Your task to perform on an android device: change notification settings in the gmail app Image 0: 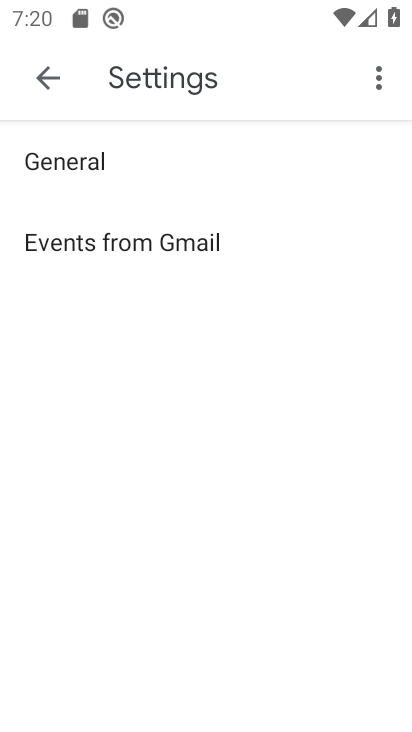
Step 0: press home button
Your task to perform on an android device: change notification settings in the gmail app Image 1: 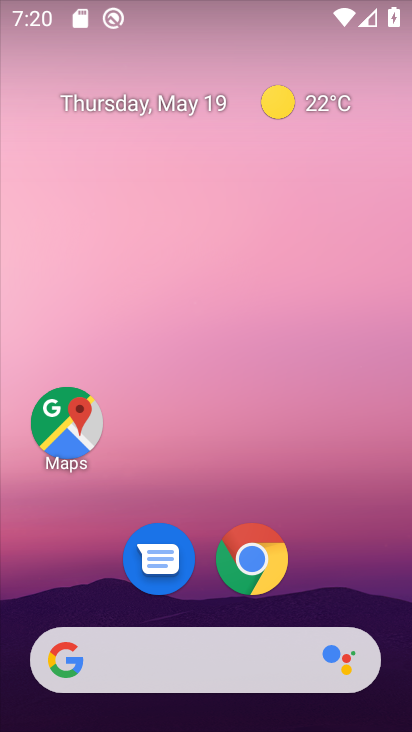
Step 1: drag from (328, 597) to (330, 5)
Your task to perform on an android device: change notification settings in the gmail app Image 2: 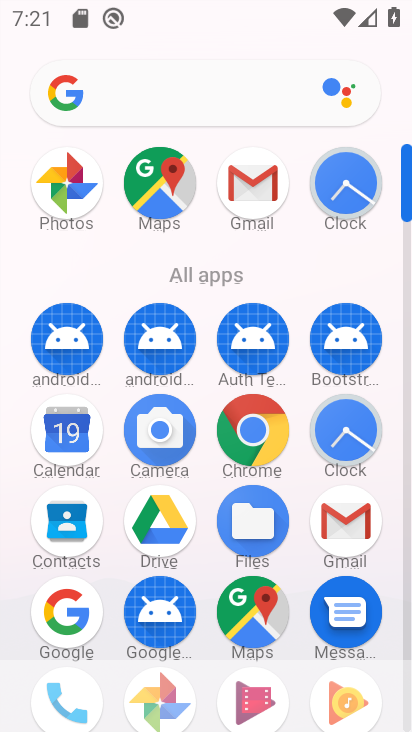
Step 2: click (241, 198)
Your task to perform on an android device: change notification settings in the gmail app Image 3: 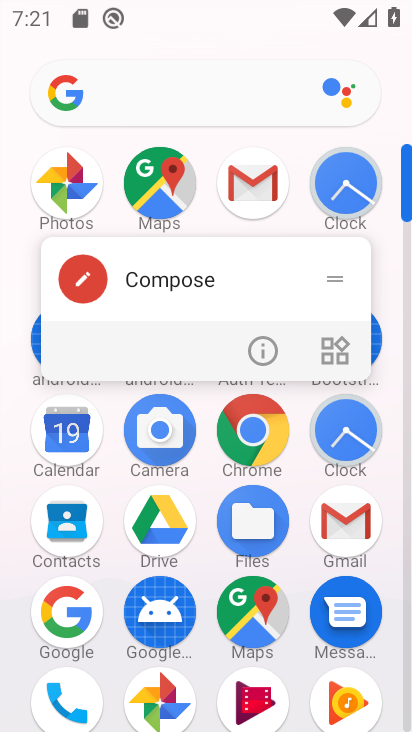
Step 3: click (260, 182)
Your task to perform on an android device: change notification settings in the gmail app Image 4: 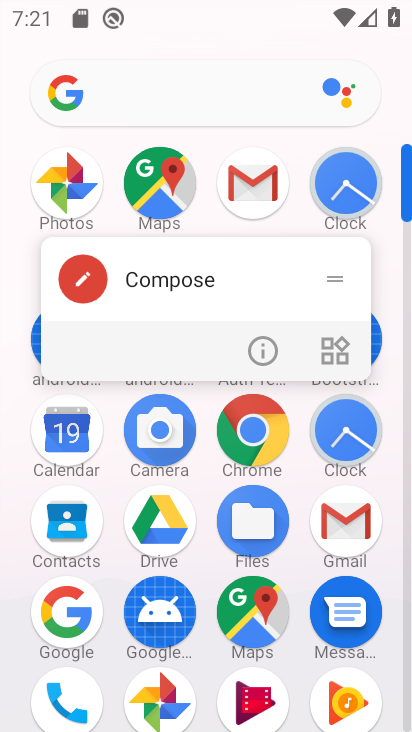
Step 4: click (260, 182)
Your task to perform on an android device: change notification settings in the gmail app Image 5: 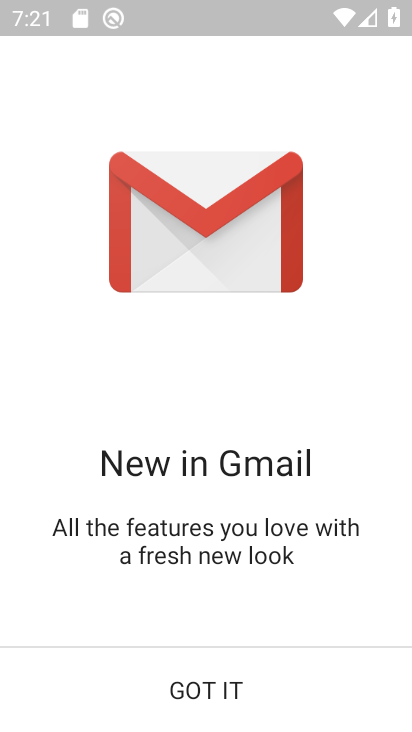
Step 5: click (65, 705)
Your task to perform on an android device: change notification settings in the gmail app Image 6: 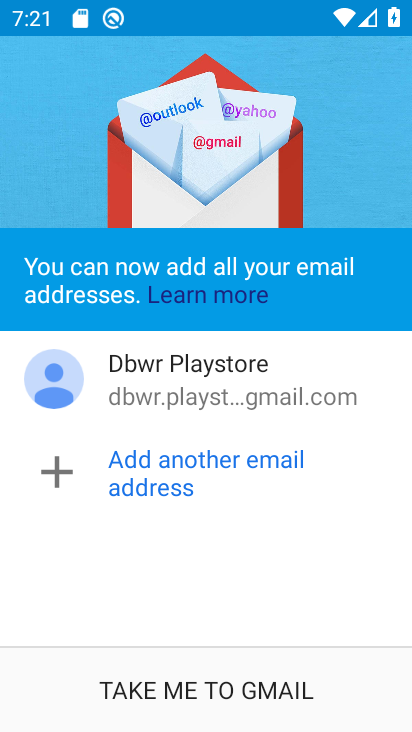
Step 6: click (55, 699)
Your task to perform on an android device: change notification settings in the gmail app Image 7: 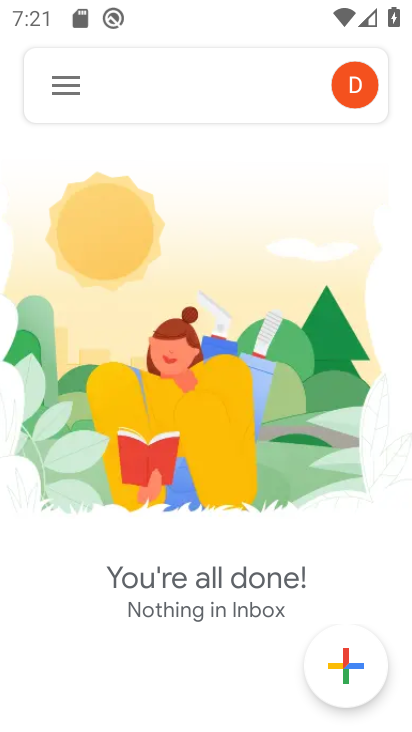
Step 7: click (71, 103)
Your task to perform on an android device: change notification settings in the gmail app Image 8: 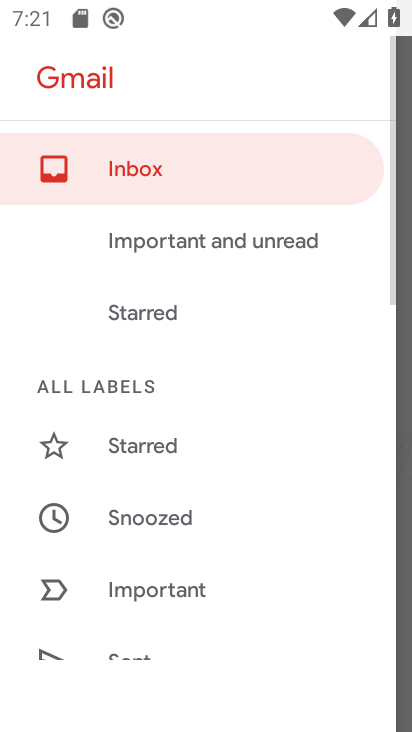
Step 8: drag from (204, 595) to (206, 185)
Your task to perform on an android device: change notification settings in the gmail app Image 9: 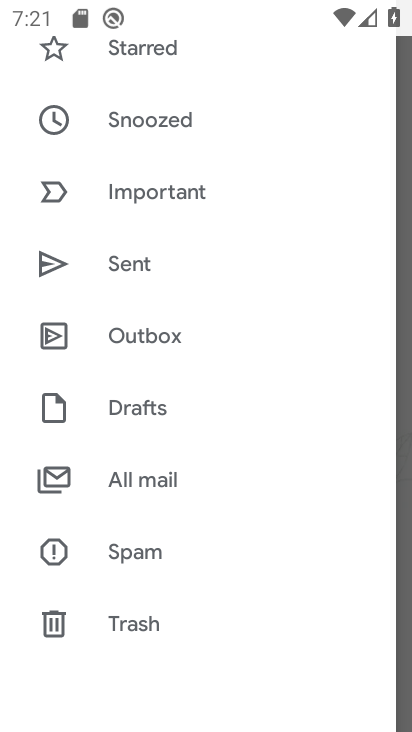
Step 9: drag from (152, 575) to (209, 131)
Your task to perform on an android device: change notification settings in the gmail app Image 10: 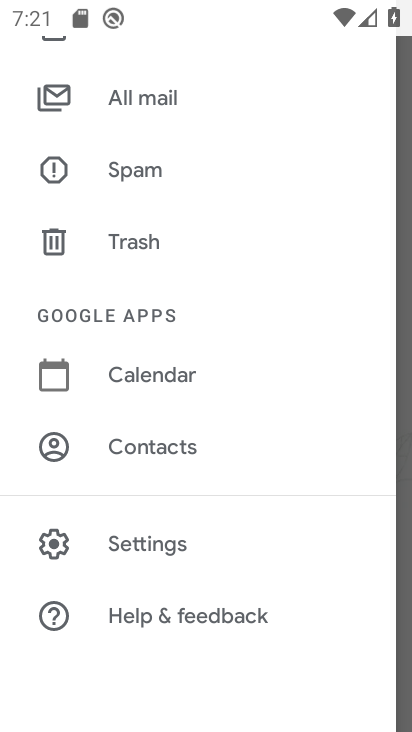
Step 10: click (144, 541)
Your task to perform on an android device: change notification settings in the gmail app Image 11: 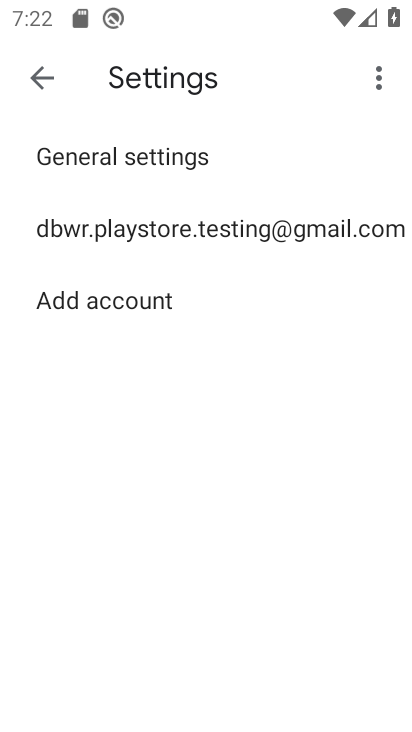
Step 11: click (196, 212)
Your task to perform on an android device: change notification settings in the gmail app Image 12: 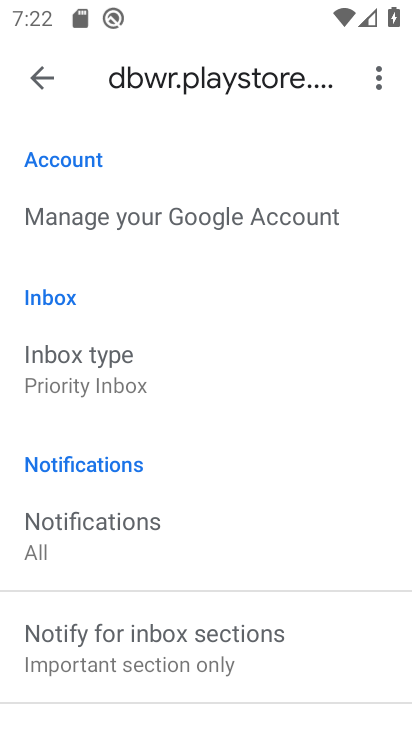
Step 12: drag from (122, 649) to (152, 189)
Your task to perform on an android device: change notification settings in the gmail app Image 13: 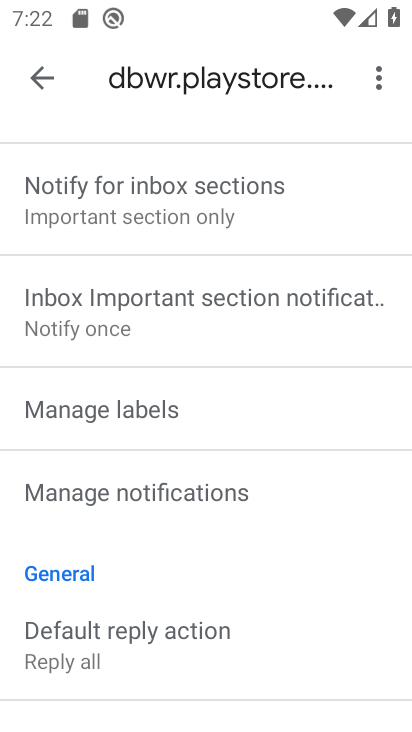
Step 13: click (125, 493)
Your task to perform on an android device: change notification settings in the gmail app Image 14: 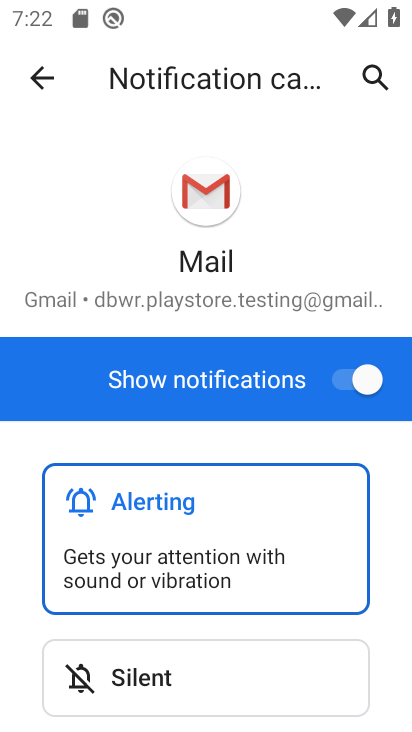
Step 14: click (360, 358)
Your task to perform on an android device: change notification settings in the gmail app Image 15: 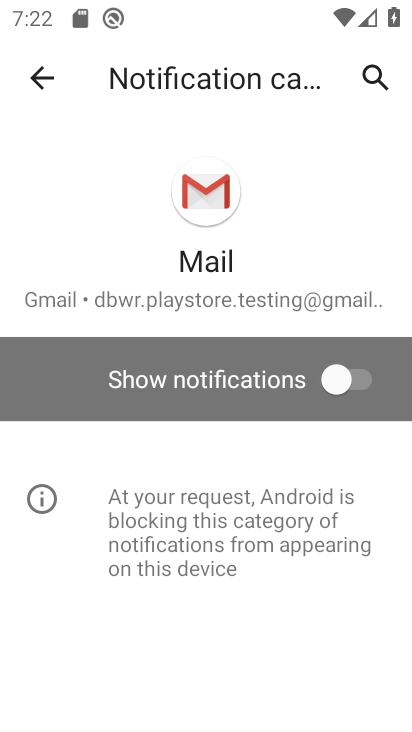
Step 15: task complete